Your task to perform on an android device: star an email in the gmail app Image 0: 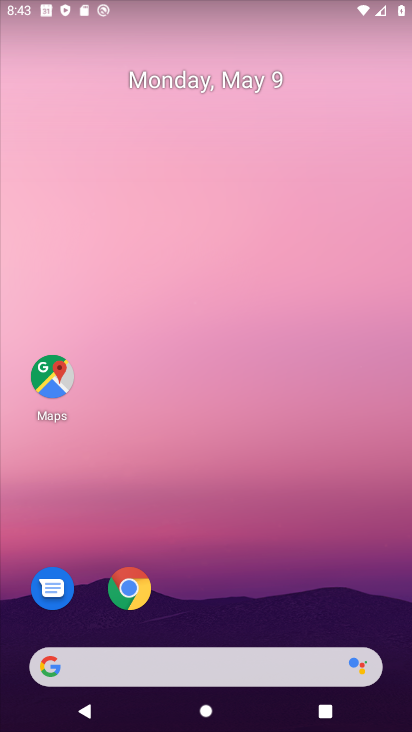
Step 0: drag from (181, 528) to (229, 192)
Your task to perform on an android device: star an email in the gmail app Image 1: 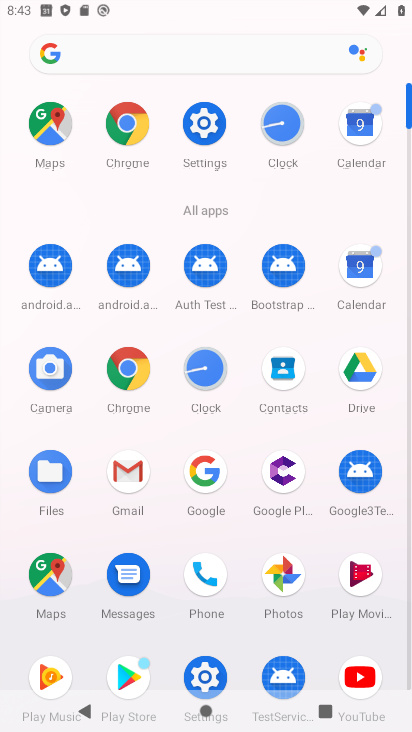
Step 1: click (147, 472)
Your task to perform on an android device: star an email in the gmail app Image 2: 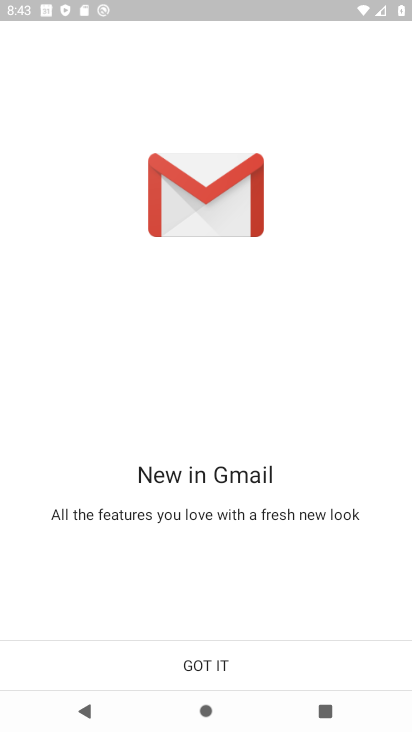
Step 2: click (220, 660)
Your task to perform on an android device: star an email in the gmail app Image 3: 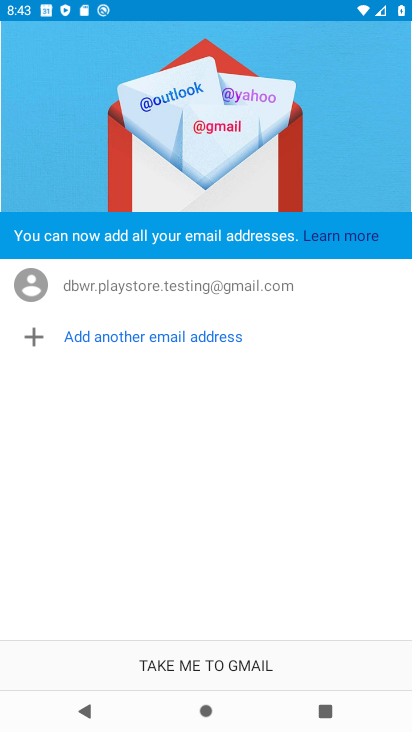
Step 3: click (220, 660)
Your task to perform on an android device: star an email in the gmail app Image 4: 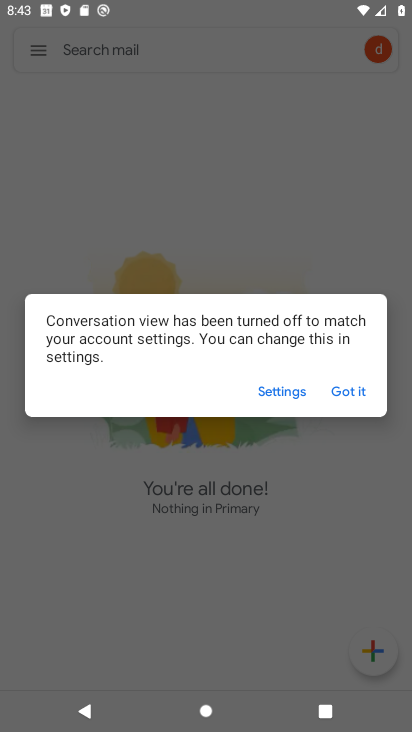
Step 4: task complete